Your task to perform on an android device: Check the news Image 0: 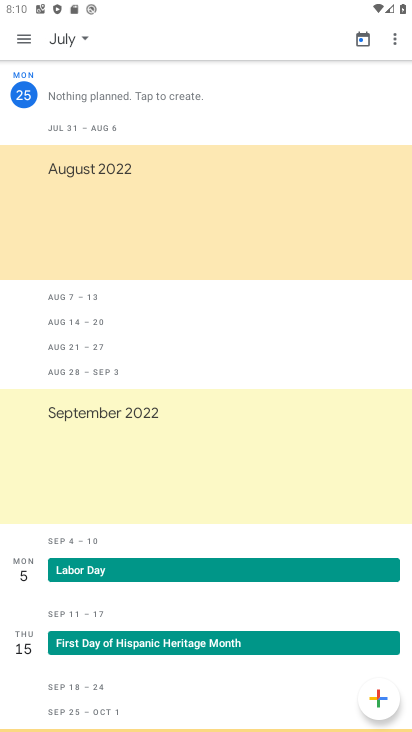
Step 0: press home button
Your task to perform on an android device: Check the news Image 1: 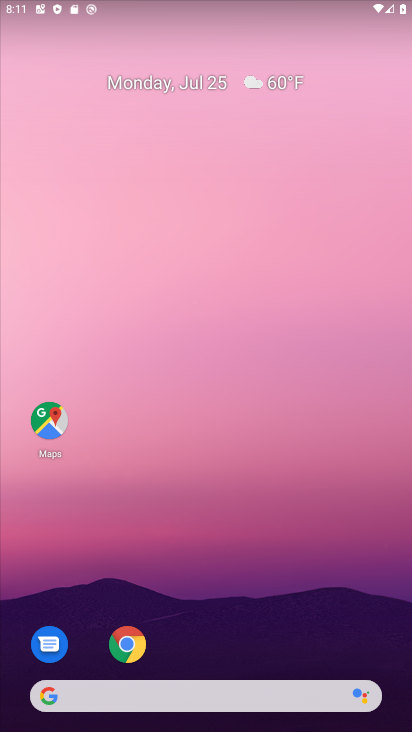
Step 1: click (179, 695)
Your task to perform on an android device: Check the news Image 2: 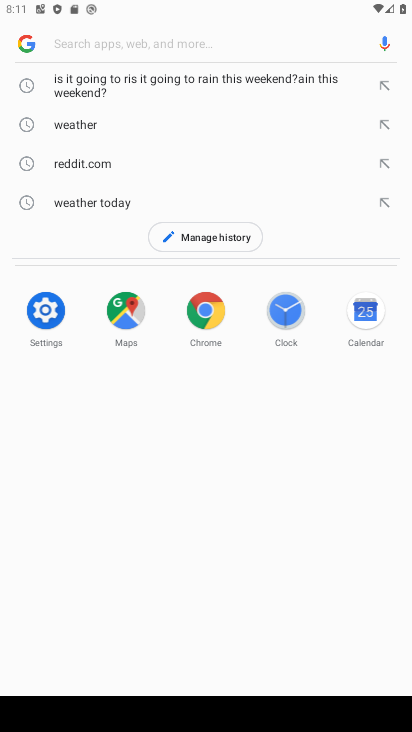
Step 2: type "Check the news"
Your task to perform on an android device: Check the news Image 3: 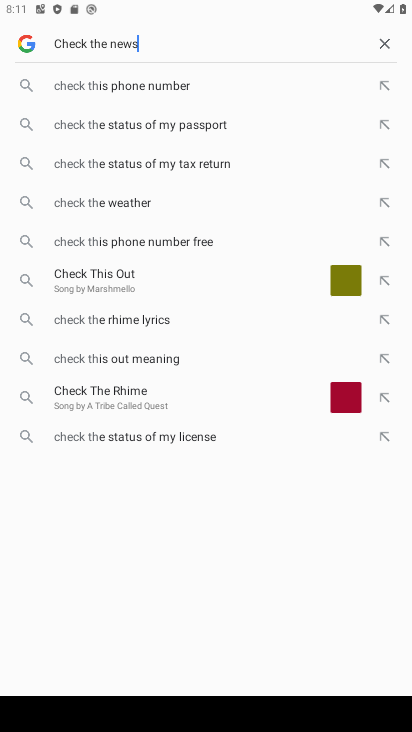
Step 3: press enter
Your task to perform on an android device: Check the news Image 4: 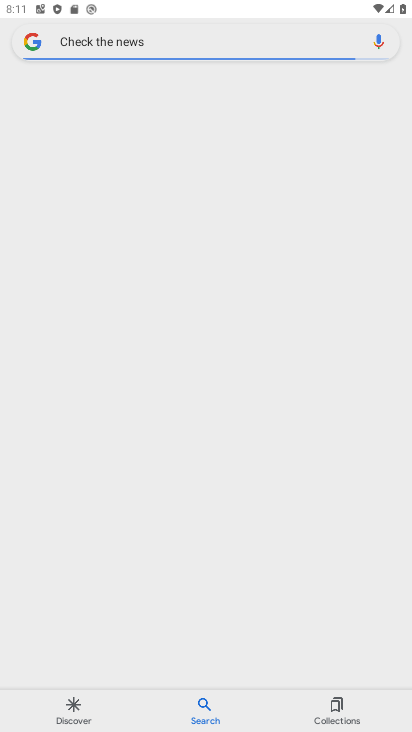
Step 4: press enter
Your task to perform on an android device: Check the news Image 5: 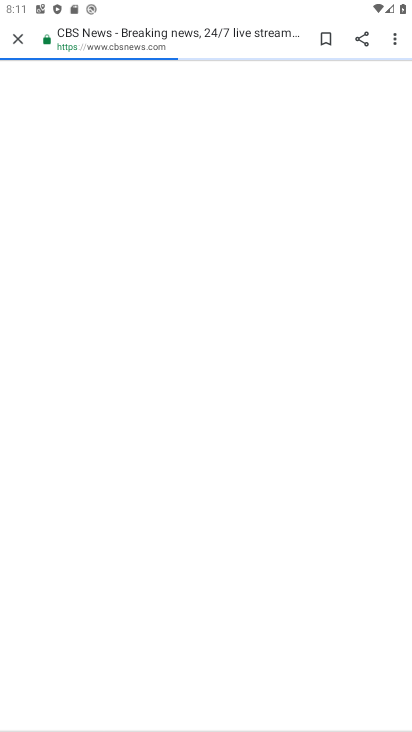
Step 5: task complete